Your task to perform on an android device: Go to Amazon Image 0: 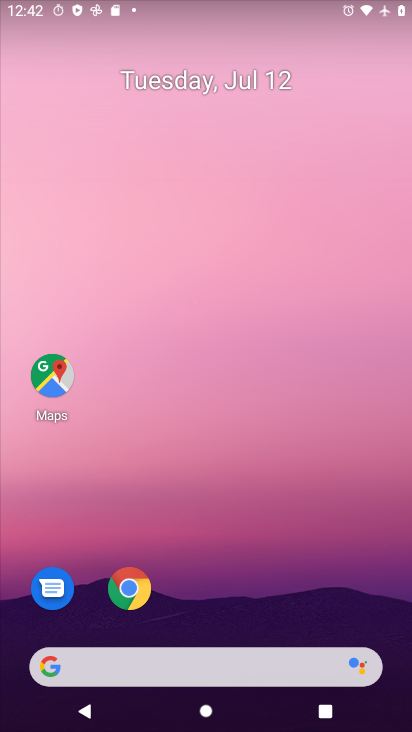
Step 0: click (125, 594)
Your task to perform on an android device: Go to Amazon Image 1: 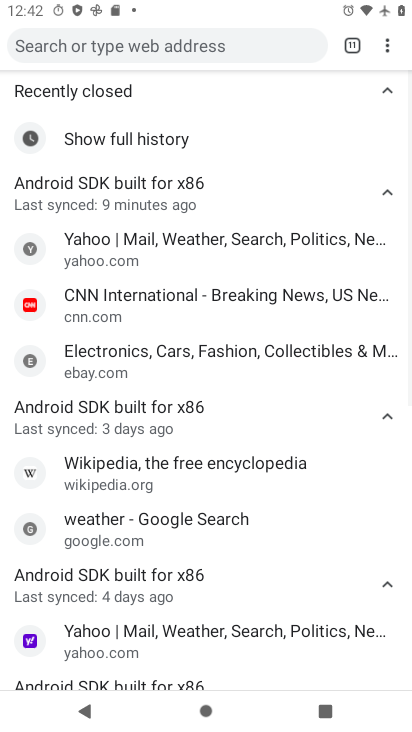
Step 1: drag from (388, 40) to (300, 95)
Your task to perform on an android device: Go to Amazon Image 2: 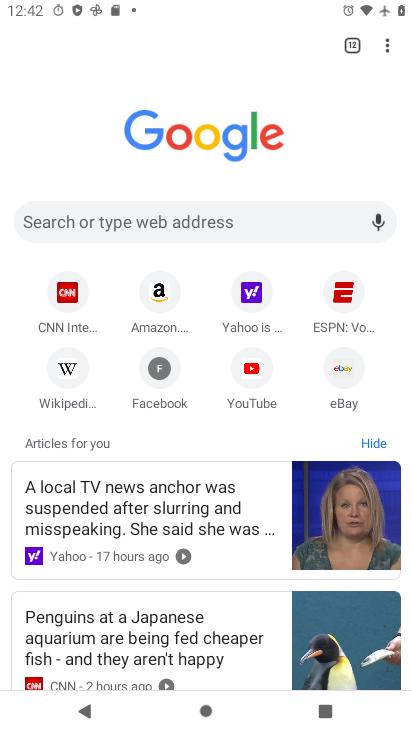
Step 2: click (156, 289)
Your task to perform on an android device: Go to Amazon Image 3: 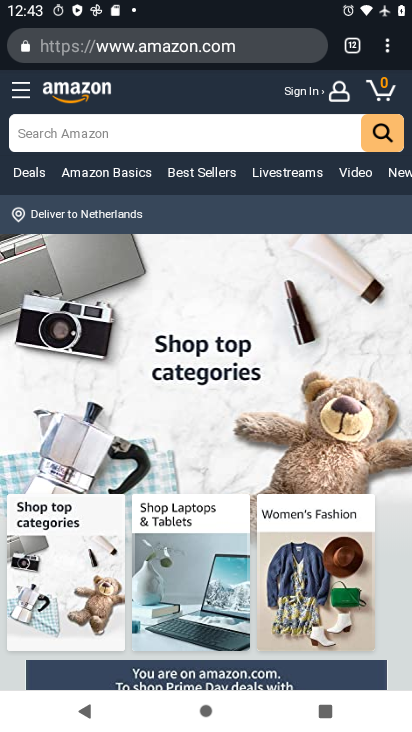
Step 3: task complete